Your task to perform on an android device: open chrome and create a bookmark for the current page Image 0: 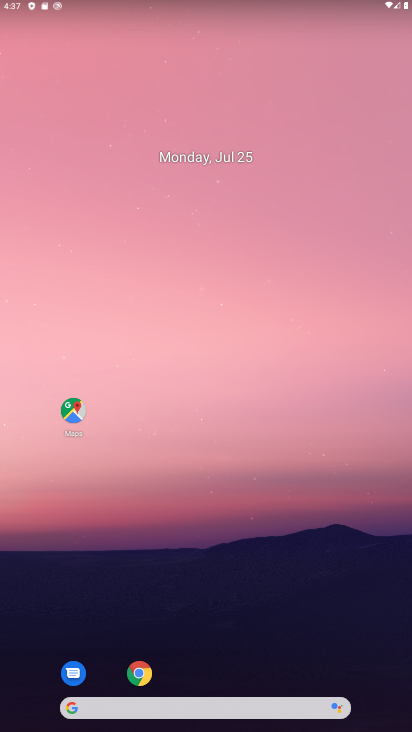
Step 0: drag from (324, 568) to (323, 223)
Your task to perform on an android device: open chrome and create a bookmark for the current page Image 1: 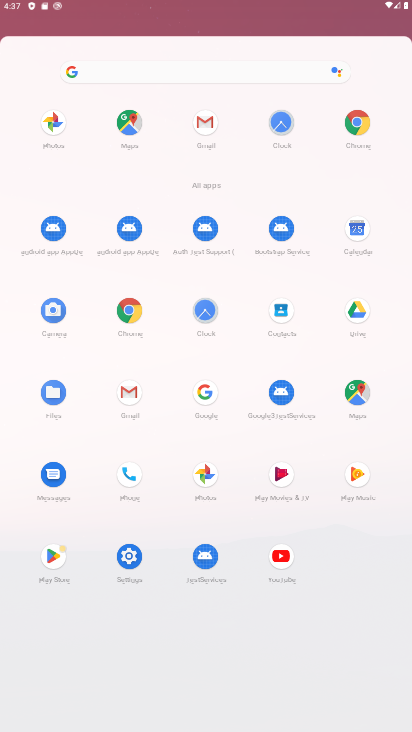
Step 1: drag from (317, 689) to (281, 124)
Your task to perform on an android device: open chrome and create a bookmark for the current page Image 2: 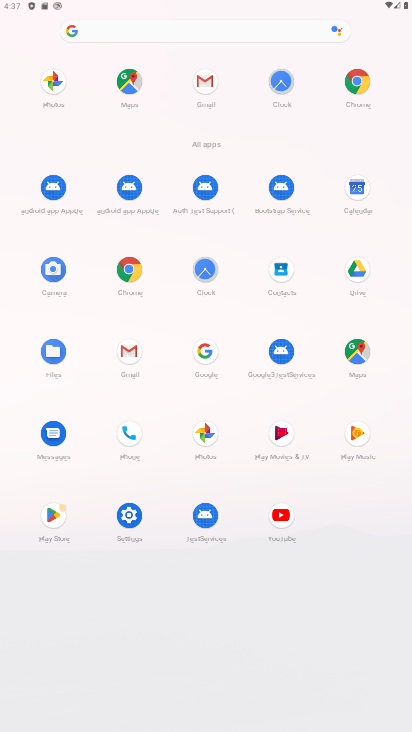
Step 2: click (121, 275)
Your task to perform on an android device: open chrome and create a bookmark for the current page Image 3: 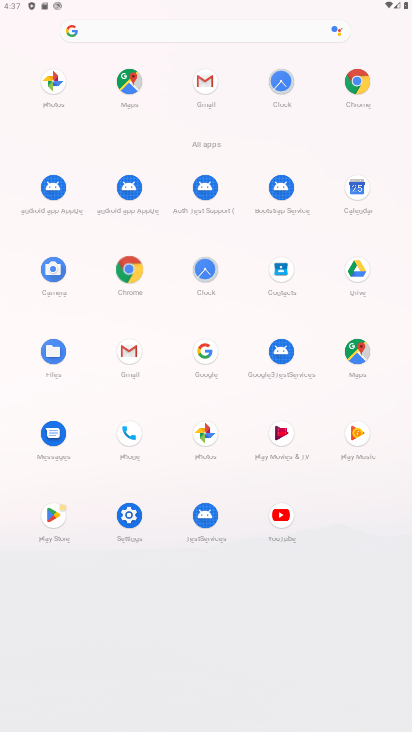
Step 3: click (121, 275)
Your task to perform on an android device: open chrome and create a bookmark for the current page Image 4: 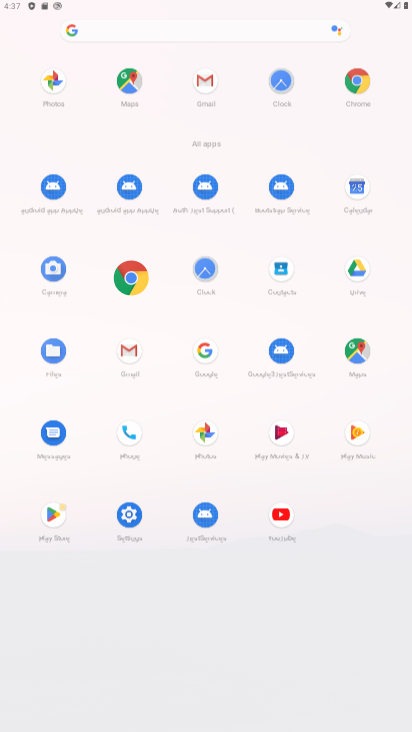
Step 4: click (118, 275)
Your task to perform on an android device: open chrome and create a bookmark for the current page Image 5: 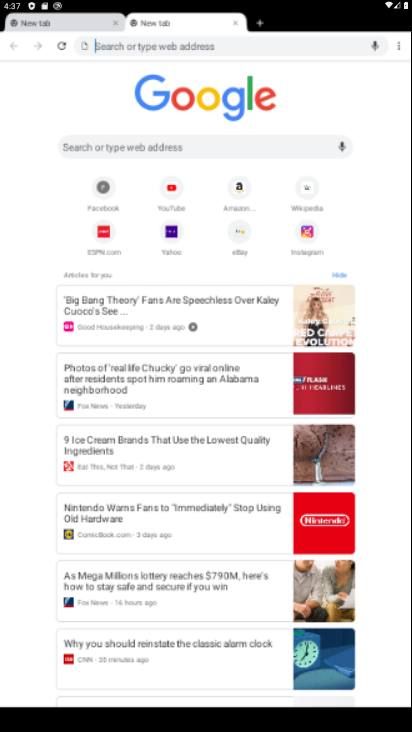
Step 5: click (120, 276)
Your task to perform on an android device: open chrome and create a bookmark for the current page Image 6: 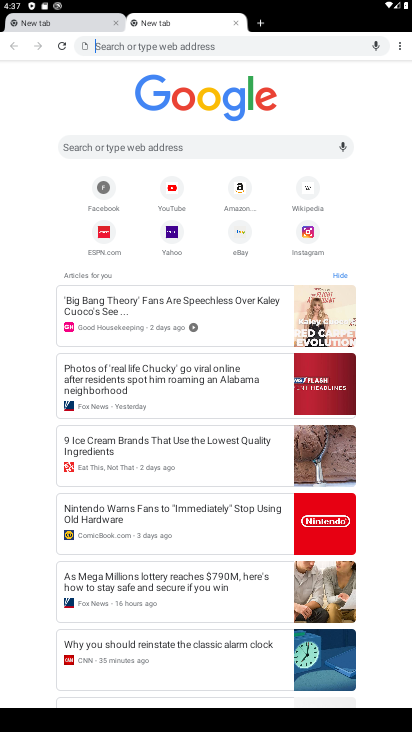
Step 6: drag from (401, 46) to (313, 90)
Your task to perform on an android device: open chrome and create a bookmark for the current page Image 7: 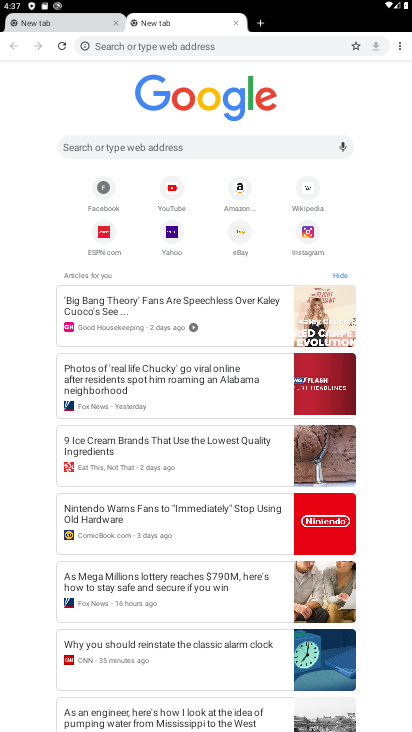
Step 7: click (328, 86)
Your task to perform on an android device: open chrome and create a bookmark for the current page Image 8: 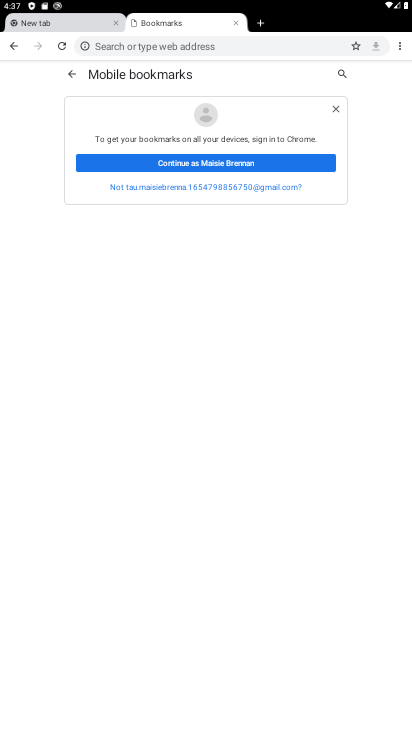
Step 8: click (337, 110)
Your task to perform on an android device: open chrome and create a bookmark for the current page Image 9: 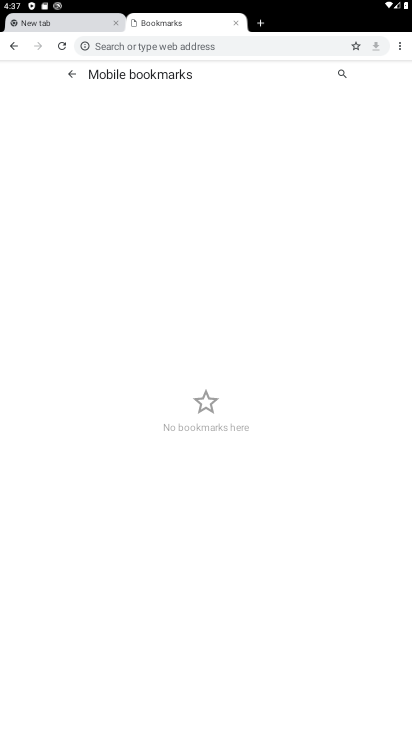
Step 9: task complete